Your task to perform on an android device: toggle javascript in the chrome app Image 0: 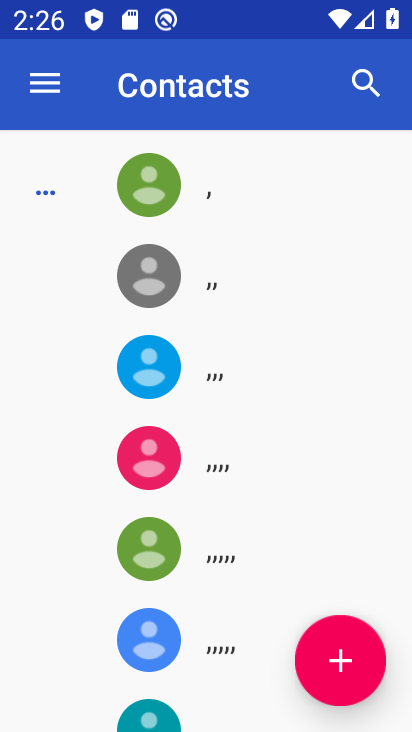
Step 0: press home button
Your task to perform on an android device: toggle javascript in the chrome app Image 1: 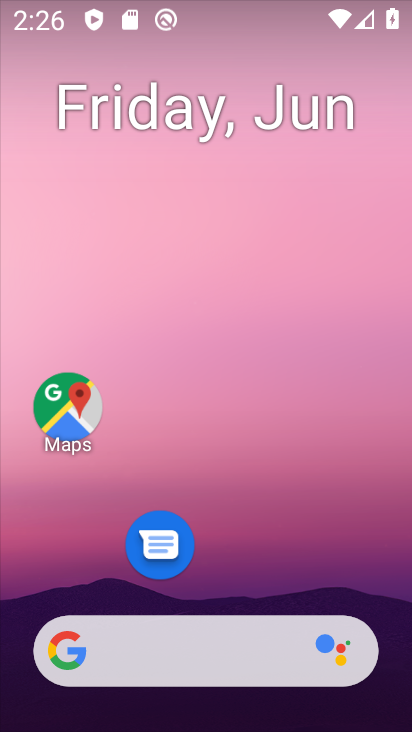
Step 1: drag from (253, 589) to (323, 84)
Your task to perform on an android device: toggle javascript in the chrome app Image 2: 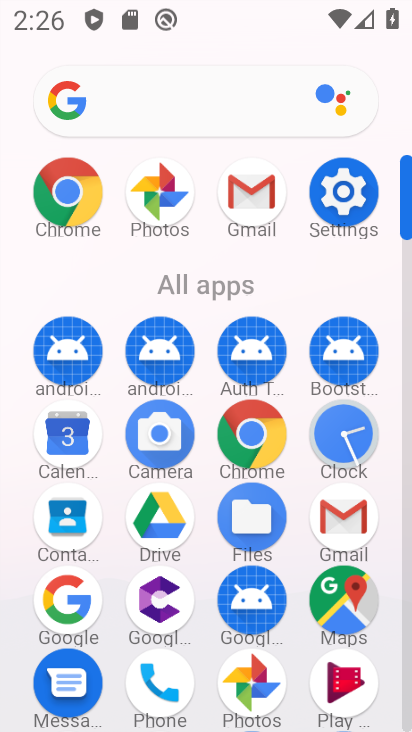
Step 2: click (260, 434)
Your task to perform on an android device: toggle javascript in the chrome app Image 3: 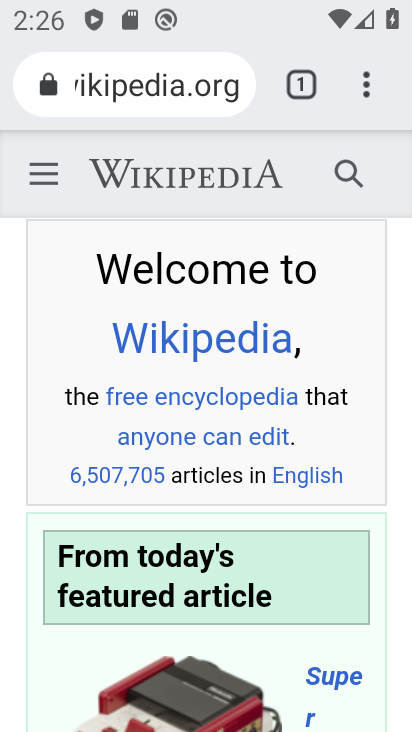
Step 3: click (363, 92)
Your task to perform on an android device: toggle javascript in the chrome app Image 4: 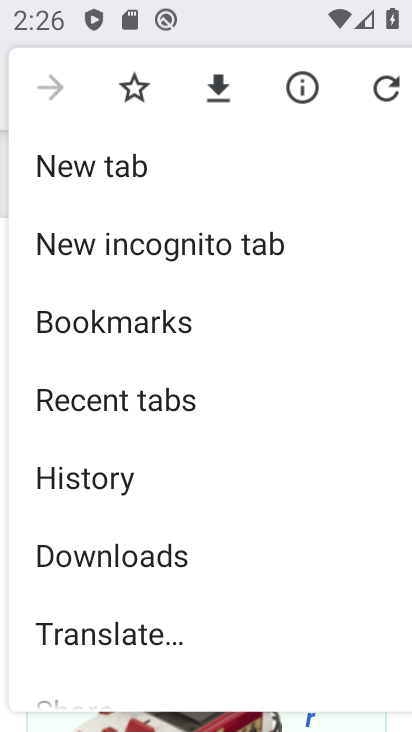
Step 4: drag from (161, 591) to (182, 303)
Your task to perform on an android device: toggle javascript in the chrome app Image 5: 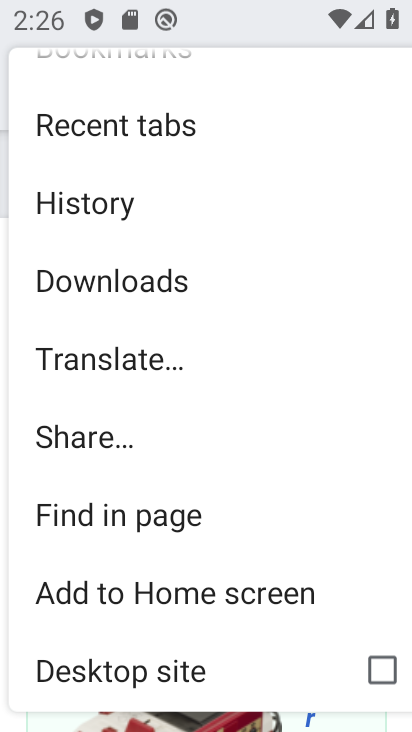
Step 5: drag from (114, 602) to (121, 305)
Your task to perform on an android device: toggle javascript in the chrome app Image 6: 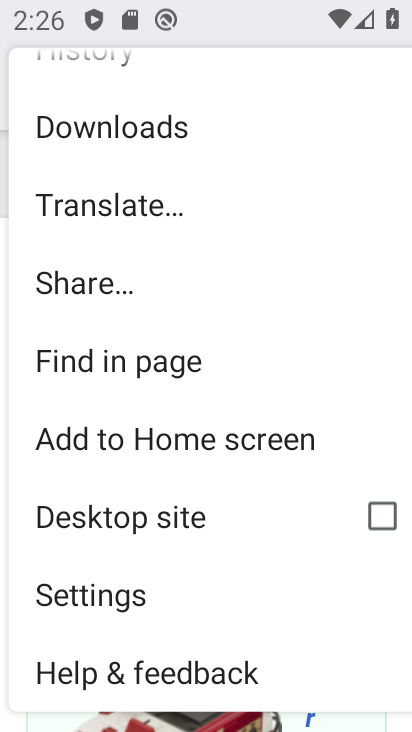
Step 6: click (88, 598)
Your task to perform on an android device: toggle javascript in the chrome app Image 7: 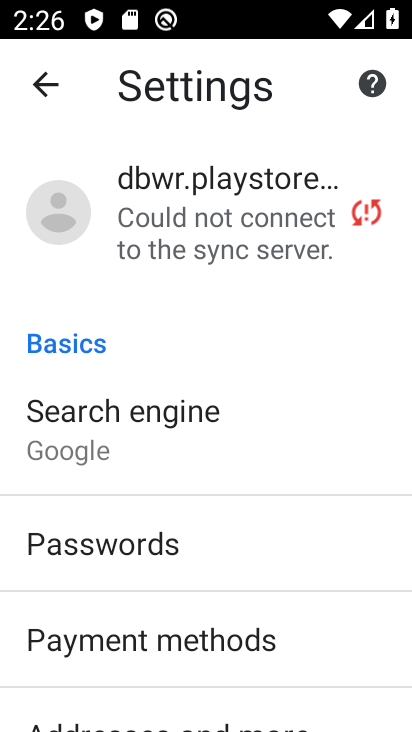
Step 7: drag from (194, 559) to (205, 277)
Your task to perform on an android device: toggle javascript in the chrome app Image 8: 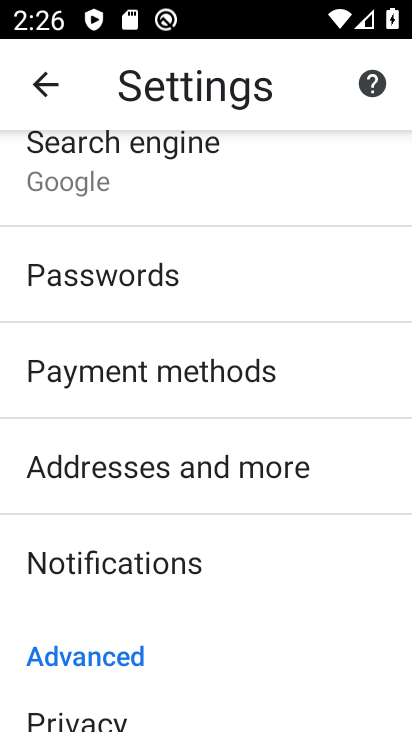
Step 8: drag from (131, 608) to (187, 233)
Your task to perform on an android device: toggle javascript in the chrome app Image 9: 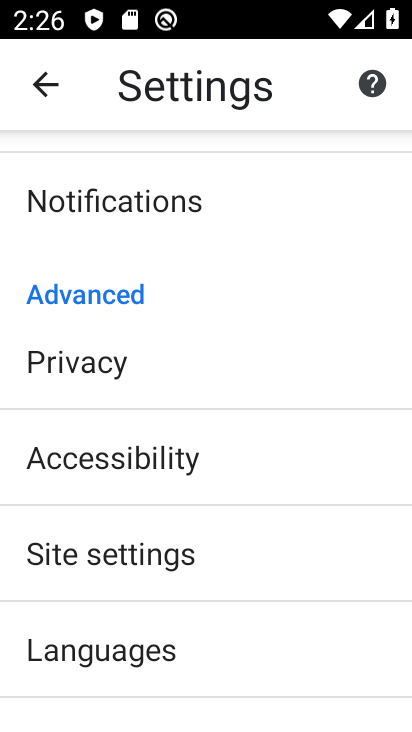
Step 9: click (122, 560)
Your task to perform on an android device: toggle javascript in the chrome app Image 10: 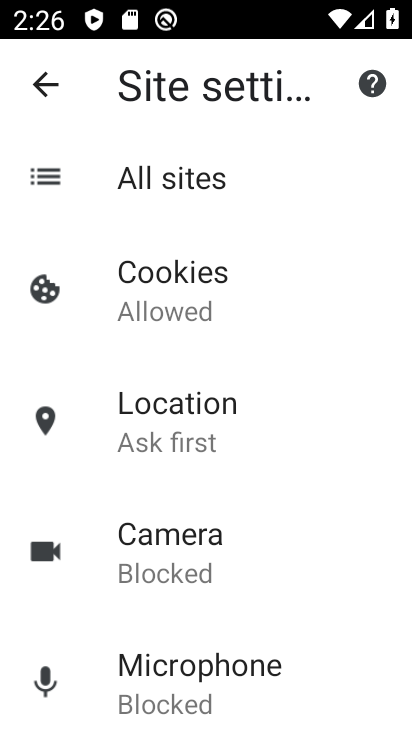
Step 10: drag from (195, 566) to (204, 234)
Your task to perform on an android device: toggle javascript in the chrome app Image 11: 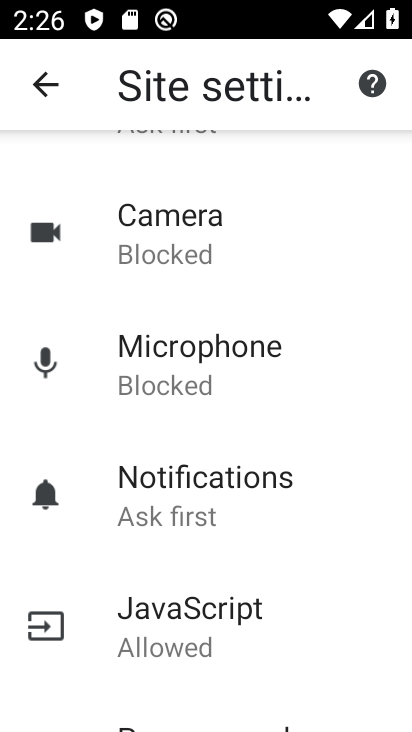
Step 11: click (185, 642)
Your task to perform on an android device: toggle javascript in the chrome app Image 12: 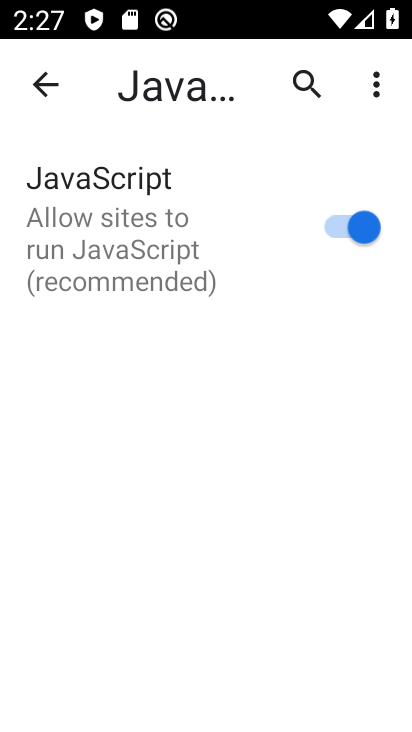
Step 12: click (303, 219)
Your task to perform on an android device: toggle javascript in the chrome app Image 13: 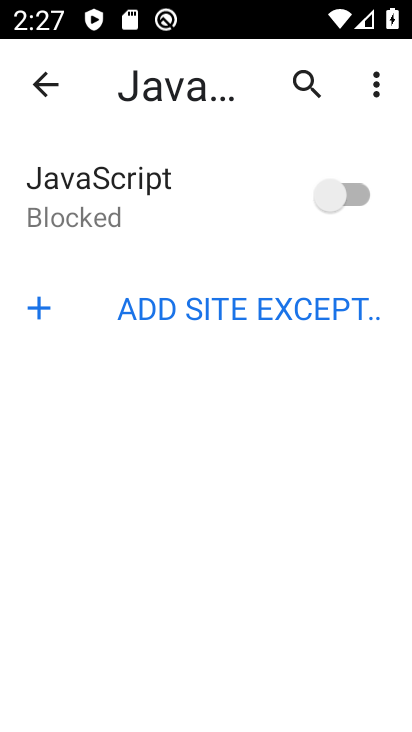
Step 13: task complete